Your task to perform on an android device: Open Youtube and go to "Your channel" Image 0: 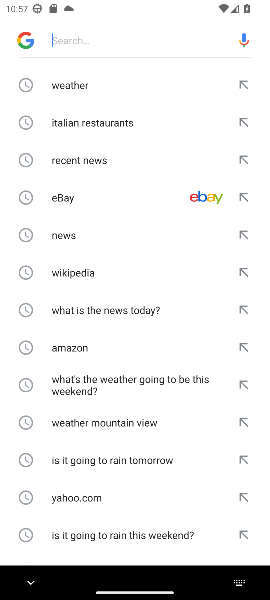
Step 0: press home button
Your task to perform on an android device: Open Youtube and go to "Your channel" Image 1: 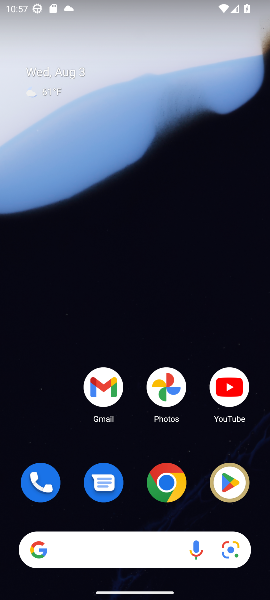
Step 1: click (213, 411)
Your task to perform on an android device: Open Youtube and go to "Your channel" Image 2: 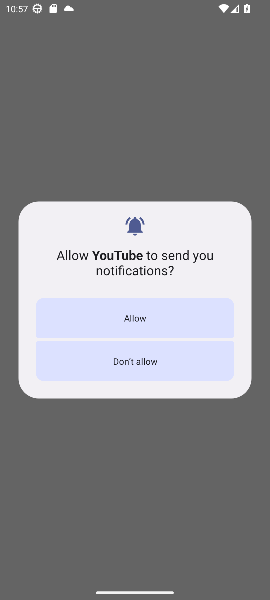
Step 2: click (61, 317)
Your task to perform on an android device: Open Youtube and go to "Your channel" Image 3: 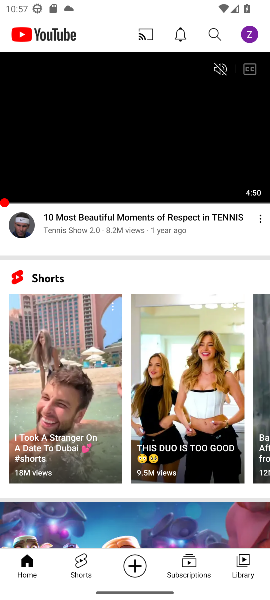
Step 3: click (257, 41)
Your task to perform on an android device: Open Youtube and go to "Your channel" Image 4: 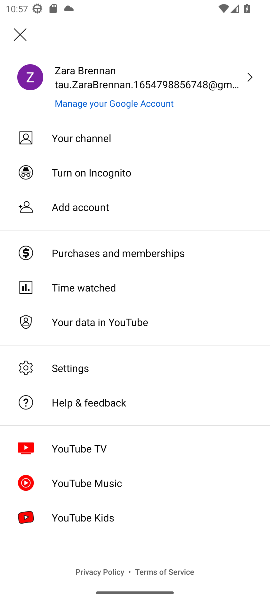
Step 4: click (82, 155)
Your task to perform on an android device: Open Youtube and go to "Your channel" Image 5: 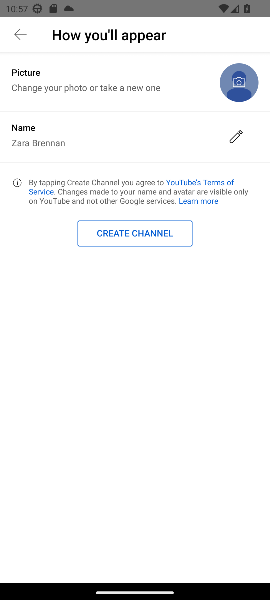
Step 5: task complete